Your task to perform on an android device: Open Google Maps and go to "Timeline" Image 0: 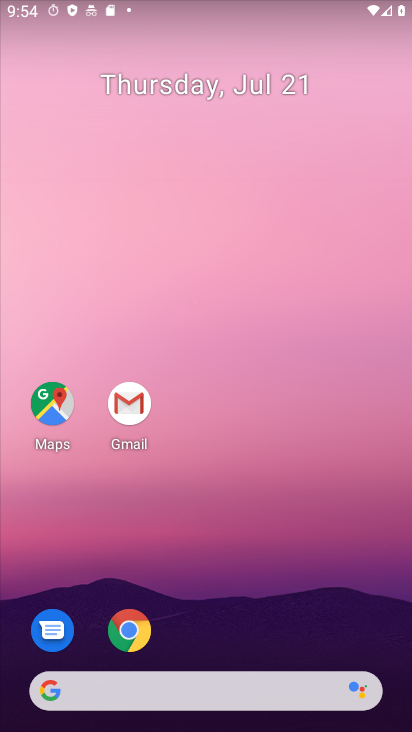
Step 0: drag from (311, 652) to (256, 274)
Your task to perform on an android device: Open Google Maps and go to "Timeline" Image 1: 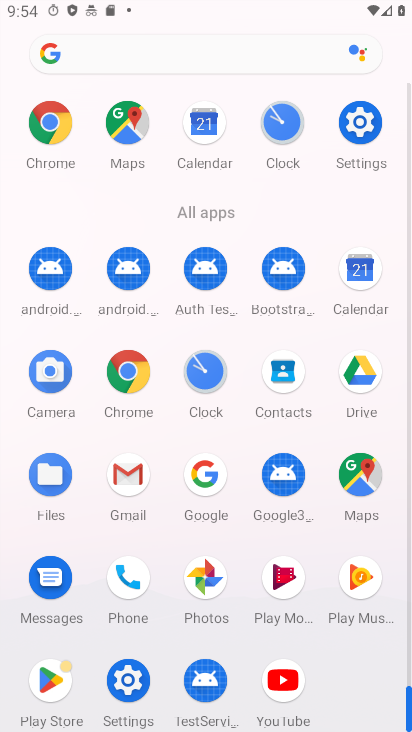
Step 1: click (354, 128)
Your task to perform on an android device: Open Google Maps and go to "Timeline" Image 2: 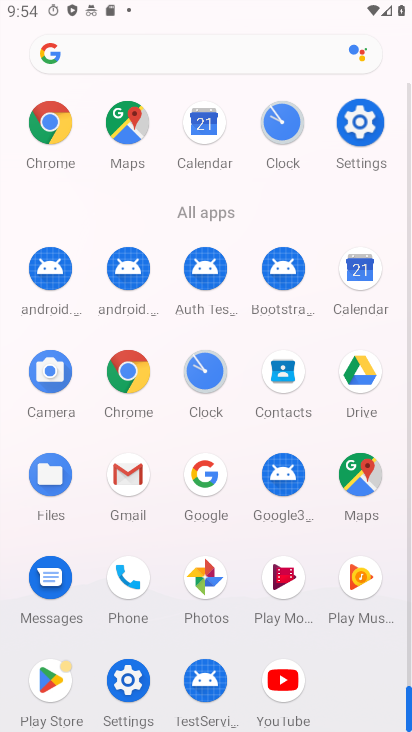
Step 2: click (356, 144)
Your task to perform on an android device: Open Google Maps and go to "Timeline" Image 3: 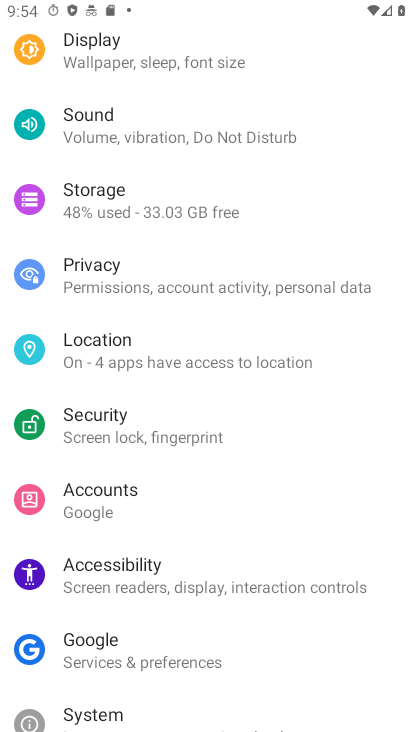
Step 3: press back button
Your task to perform on an android device: Open Google Maps and go to "Timeline" Image 4: 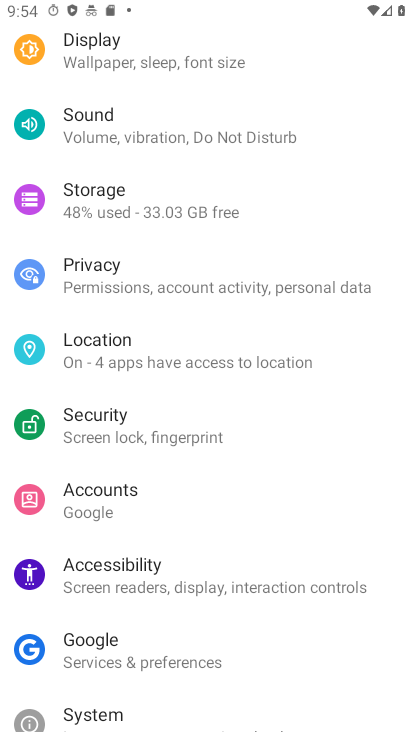
Step 4: press back button
Your task to perform on an android device: Open Google Maps and go to "Timeline" Image 5: 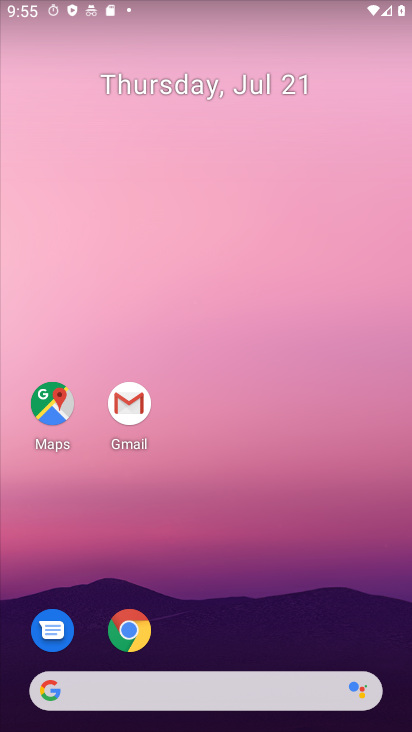
Step 5: drag from (274, 637) to (197, 205)
Your task to perform on an android device: Open Google Maps and go to "Timeline" Image 6: 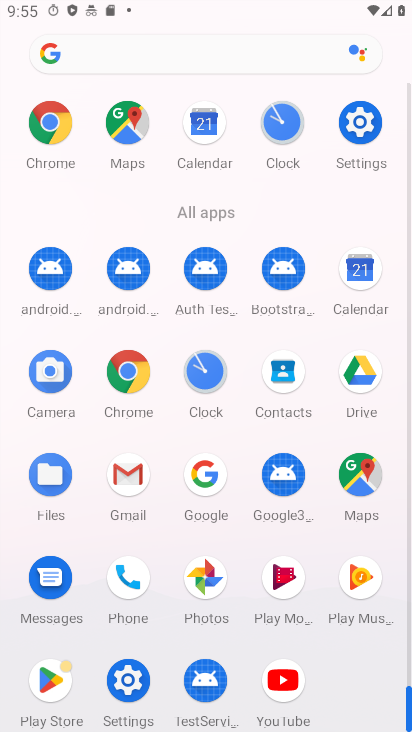
Step 6: click (357, 472)
Your task to perform on an android device: Open Google Maps and go to "Timeline" Image 7: 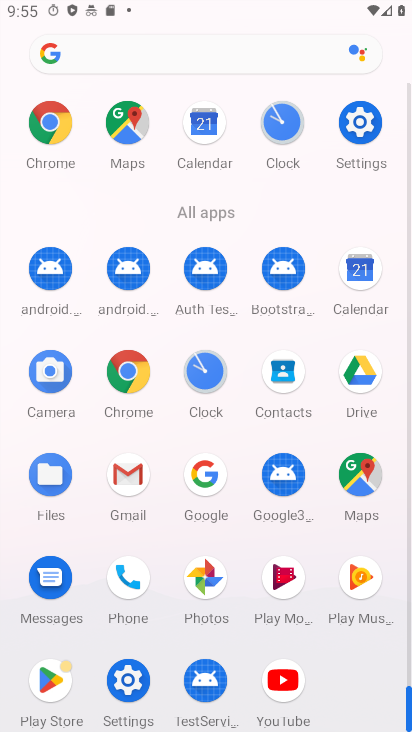
Step 7: click (360, 471)
Your task to perform on an android device: Open Google Maps and go to "Timeline" Image 8: 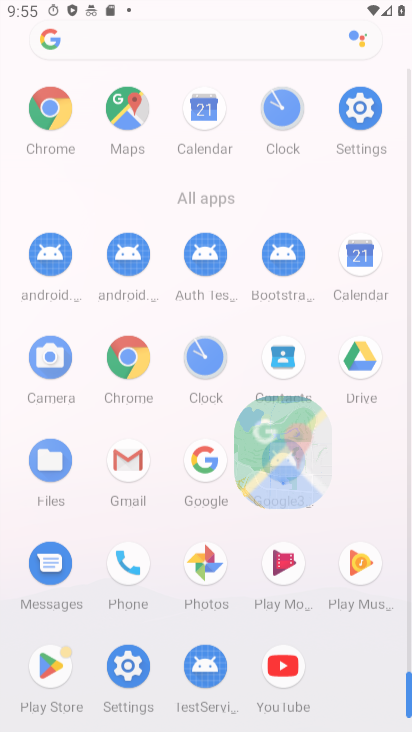
Step 8: click (363, 469)
Your task to perform on an android device: Open Google Maps and go to "Timeline" Image 9: 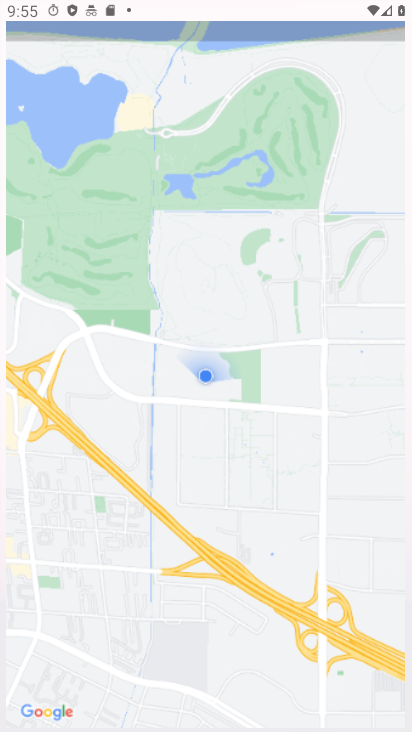
Step 9: click (363, 469)
Your task to perform on an android device: Open Google Maps and go to "Timeline" Image 10: 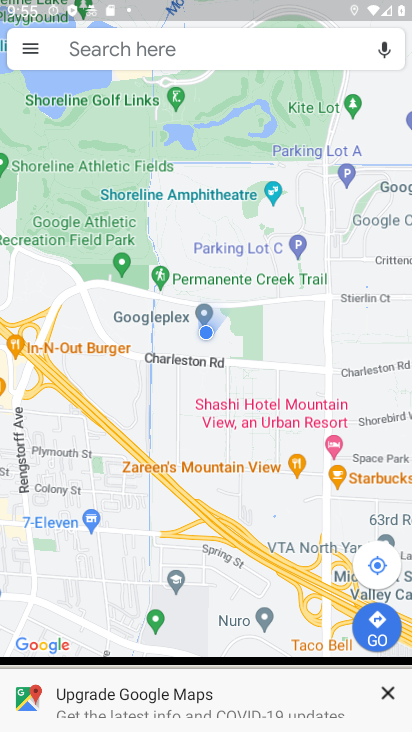
Step 10: click (34, 58)
Your task to perform on an android device: Open Google Maps and go to "Timeline" Image 11: 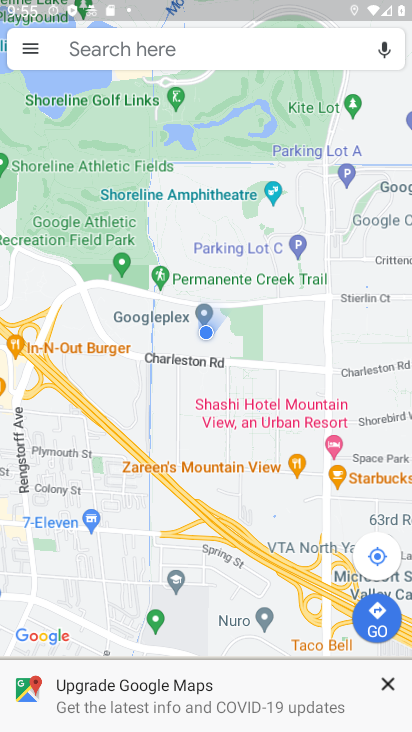
Step 11: click (34, 58)
Your task to perform on an android device: Open Google Maps and go to "Timeline" Image 12: 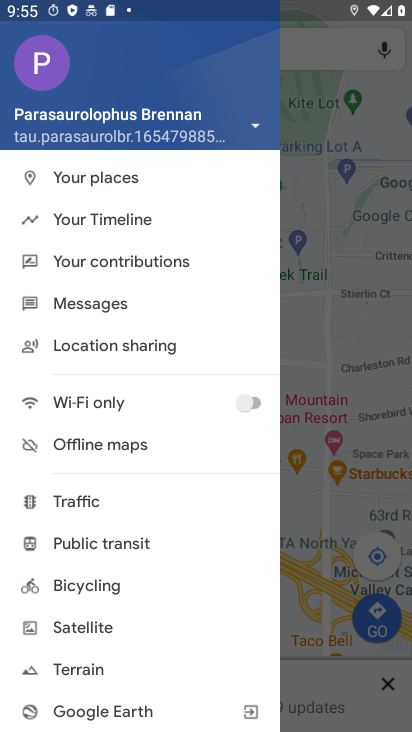
Step 12: click (108, 229)
Your task to perform on an android device: Open Google Maps and go to "Timeline" Image 13: 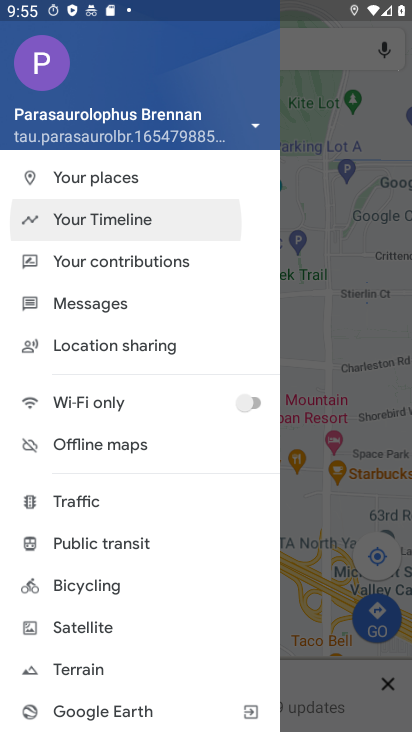
Step 13: click (113, 229)
Your task to perform on an android device: Open Google Maps and go to "Timeline" Image 14: 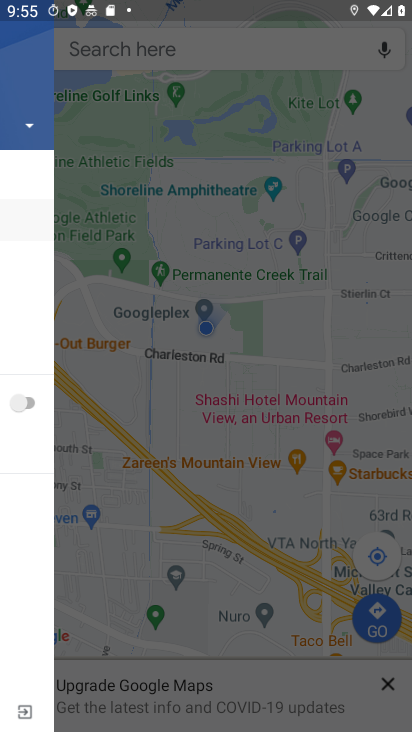
Step 14: click (118, 230)
Your task to perform on an android device: Open Google Maps and go to "Timeline" Image 15: 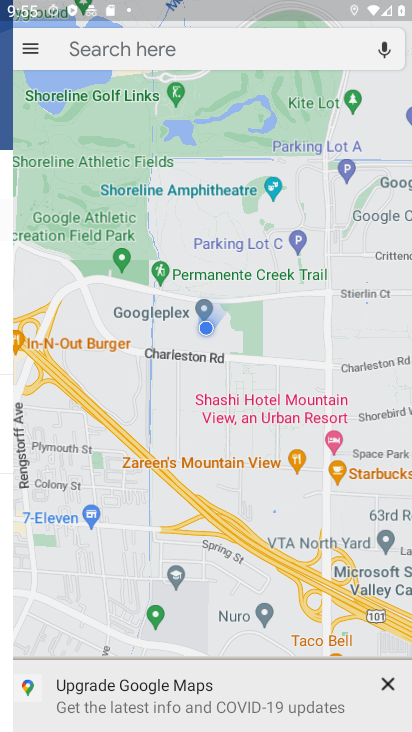
Step 15: click (118, 230)
Your task to perform on an android device: Open Google Maps and go to "Timeline" Image 16: 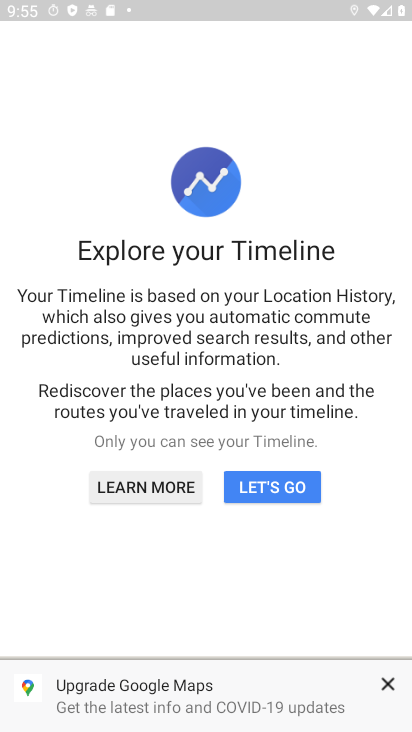
Step 16: task complete